Your task to perform on an android device: turn off location history Image 0: 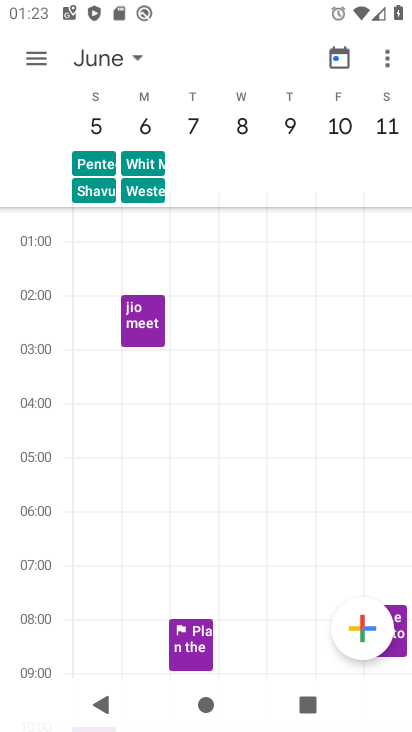
Step 0: press home button
Your task to perform on an android device: turn off location history Image 1: 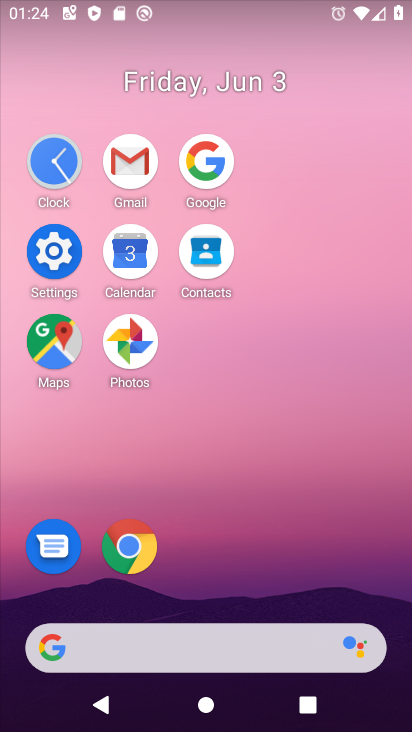
Step 1: click (64, 231)
Your task to perform on an android device: turn off location history Image 2: 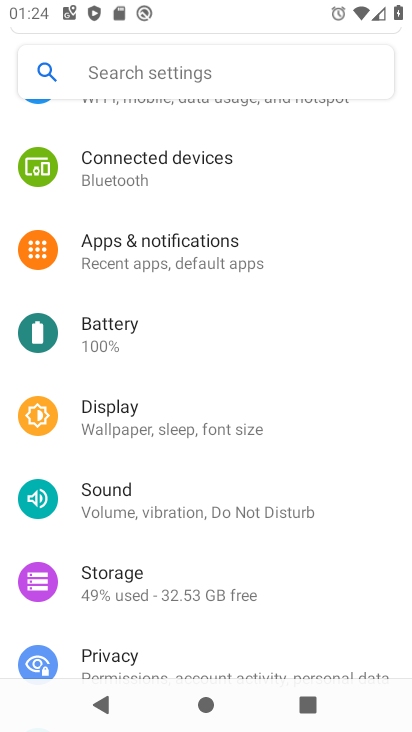
Step 2: drag from (244, 595) to (259, 237)
Your task to perform on an android device: turn off location history Image 3: 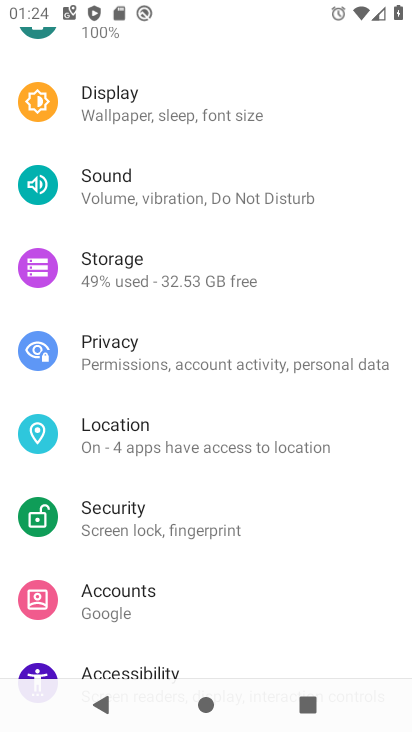
Step 3: click (201, 442)
Your task to perform on an android device: turn off location history Image 4: 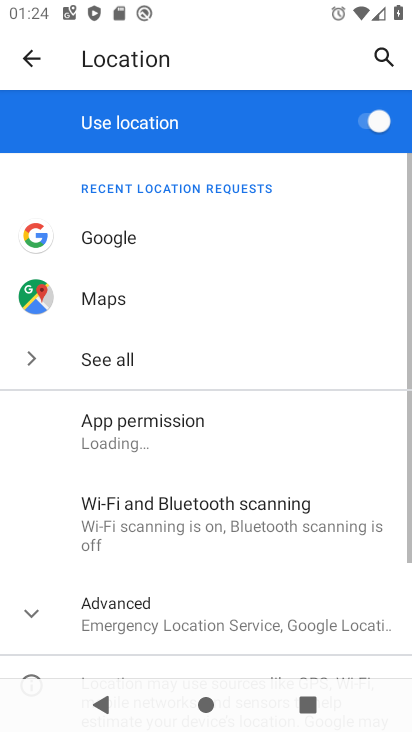
Step 4: click (195, 614)
Your task to perform on an android device: turn off location history Image 5: 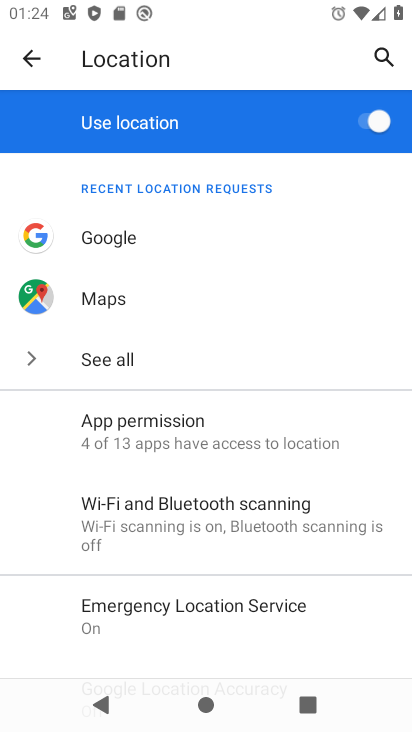
Step 5: drag from (235, 609) to (262, 181)
Your task to perform on an android device: turn off location history Image 6: 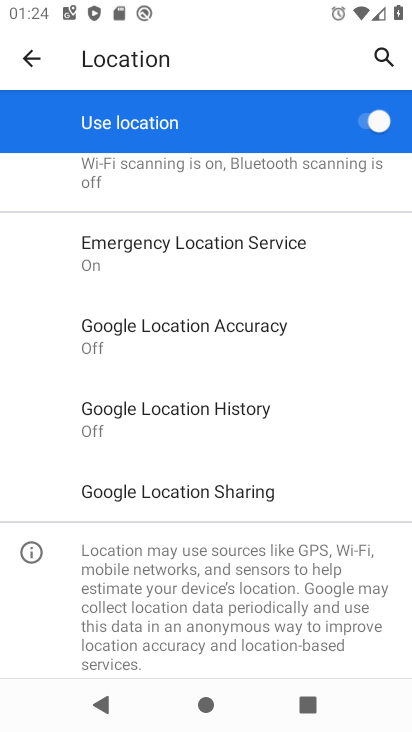
Step 6: click (220, 411)
Your task to perform on an android device: turn off location history Image 7: 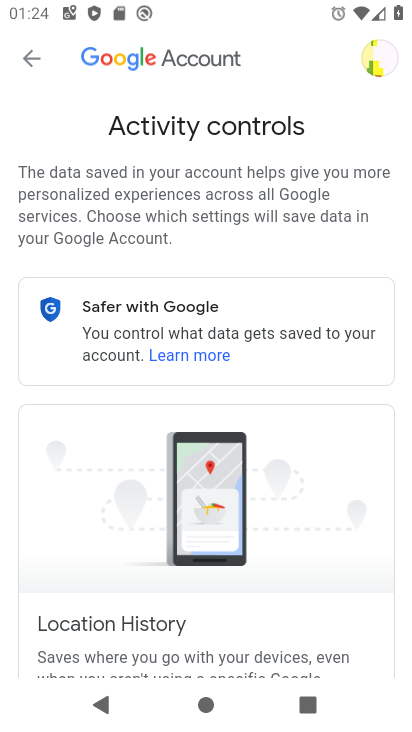
Step 7: drag from (286, 554) to (321, 196)
Your task to perform on an android device: turn off location history Image 8: 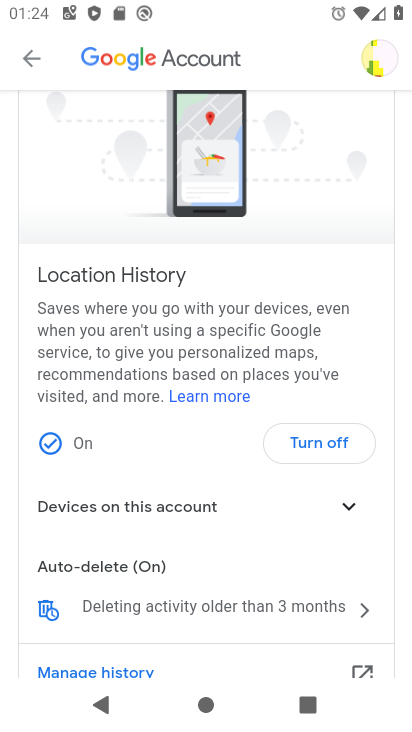
Step 8: click (304, 448)
Your task to perform on an android device: turn off location history Image 9: 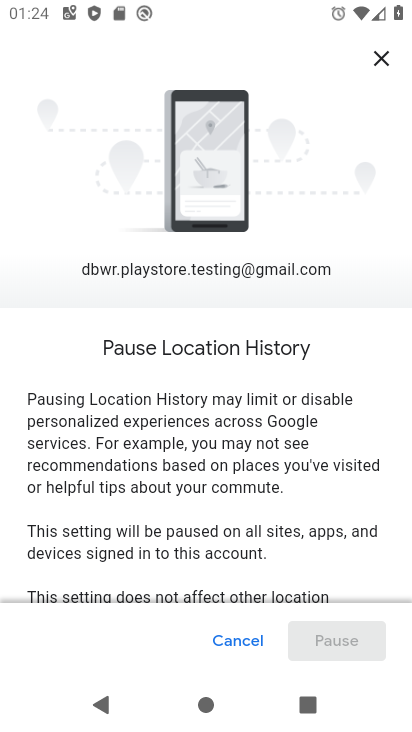
Step 9: drag from (335, 583) to (313, 160)
Your task to perform on an android device: turn off location history Image 10: 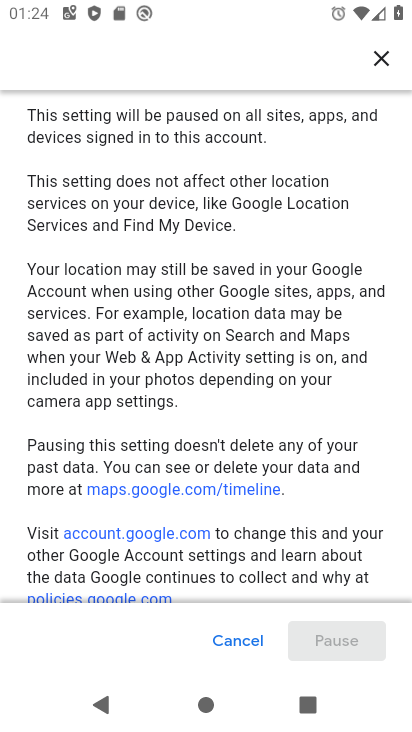
Step 10: drag from (298, 509) to (284, 116)
Your task to perform on an android device: turn off location history Image 11: 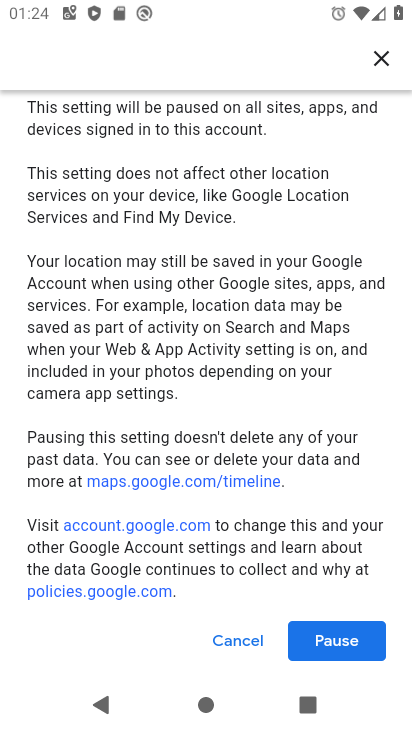
Step 11: click (353, 628)
Your task to perform on an android device: turn off location history Image 12: 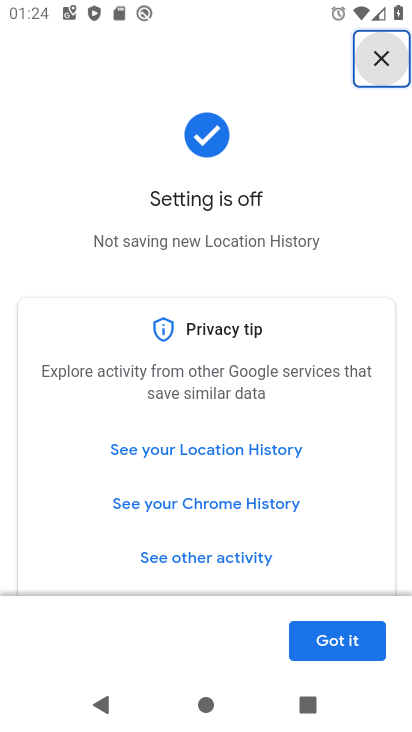
Step 12: click (345, 648)
Your task to perform on an android device: turn off location history Image 13: 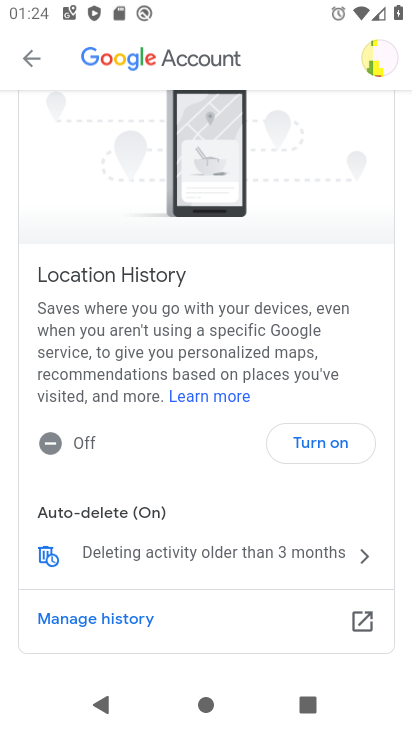
Step 13: task complete